Your task to perform on an android device: Open the stopwatch Image 0: 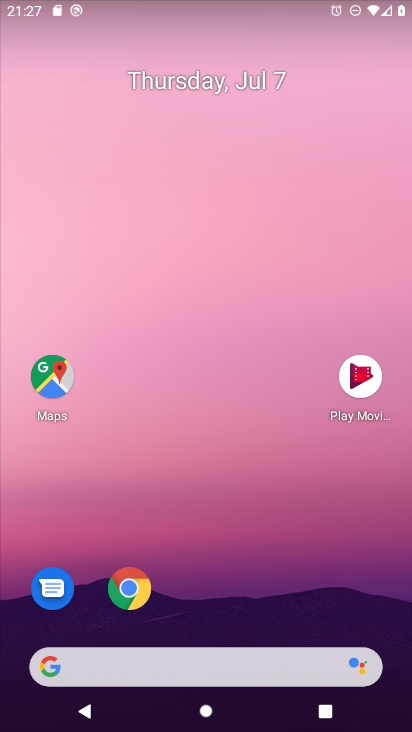
Step 0: drag from (230, 623) to (248, 263)
Your task to perform on an android device: Open the stopwatch Image 1: 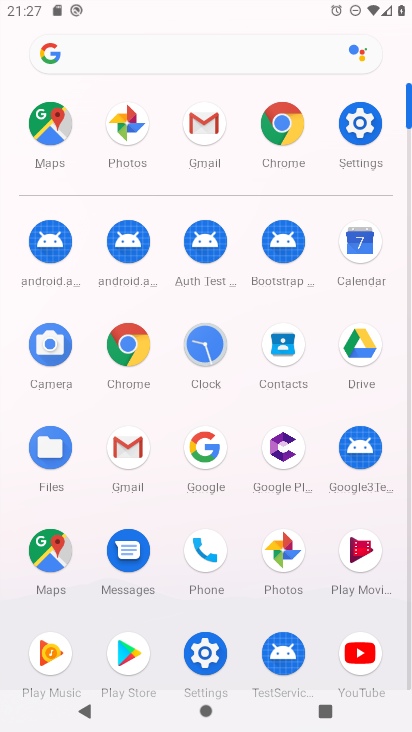
Step 1: click (200, 339)
Your task to perform on an android device: Open the stopwatch Image 2: 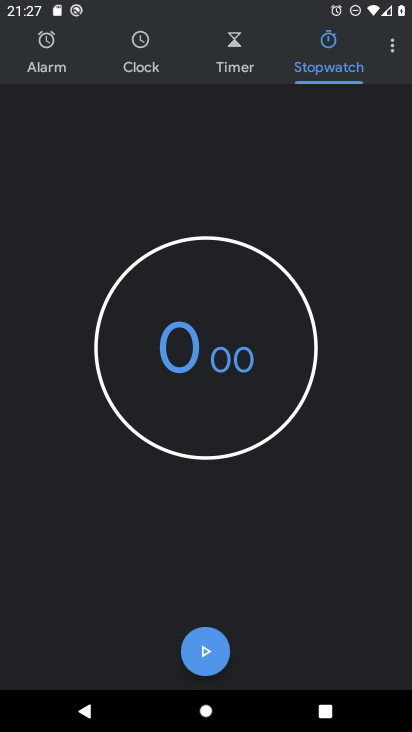
Step 2: task complete